Your task to perform on an android device: turn pop-ups on in chrome Image 0: 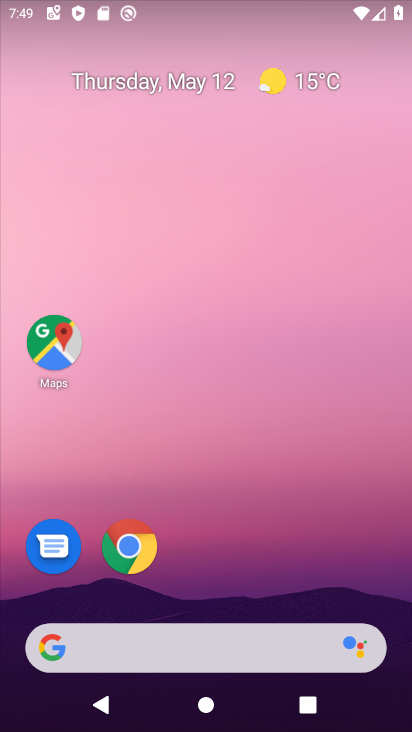
Step 0: drag from (136, 650) to (250, 225)
Your task to perform on an android device: turn pop-ups on in chrome Image 1: 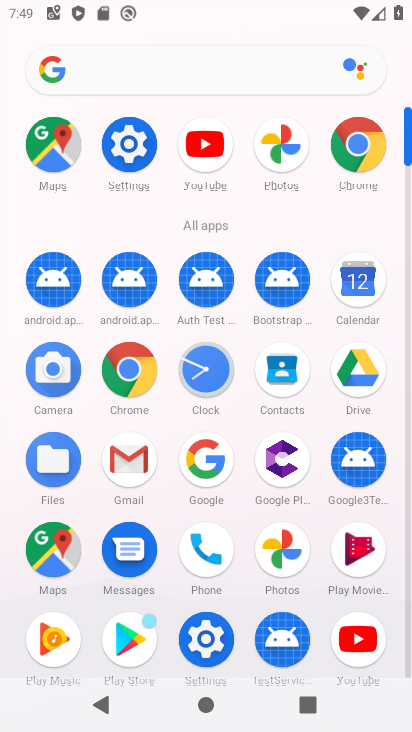
Step 1: click (352, 150)
Your task to perform on an android device: turn pop-ups on in chrome Image 2: 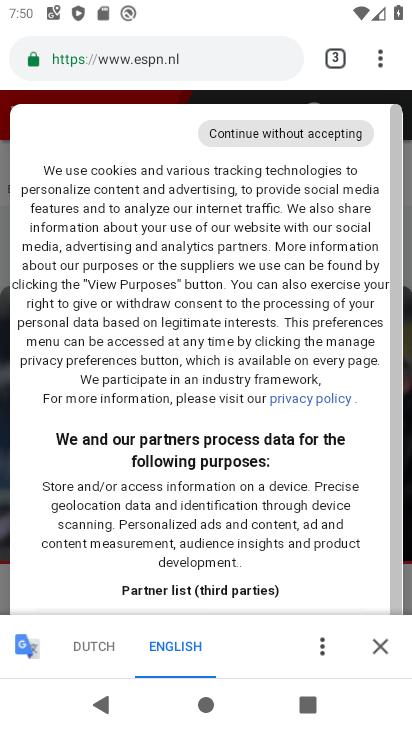
Step 2: drag from (376, 62) to (259, 575)
Your task to perform on an android device: turn pop-ups on in chrome Image 3: 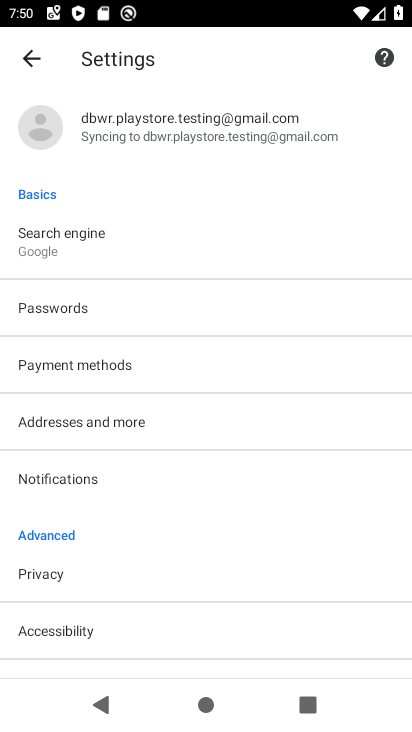
Step 3: drag from (139, 578) to (228, 332)
Your task to perform on an android device: turn pop-ups on in chrome Image 4: 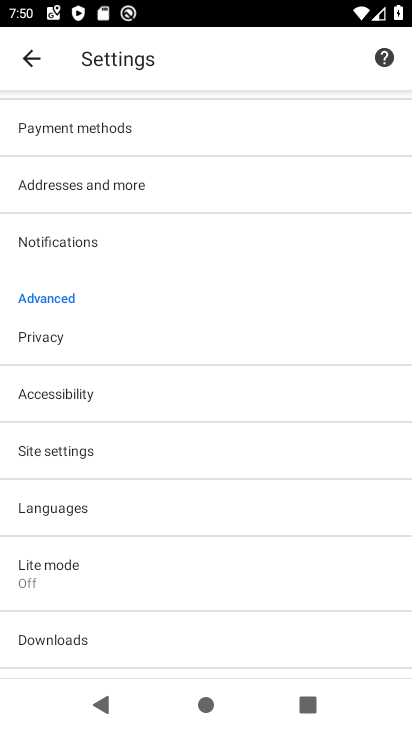
Step 4: click (104, 451)
Your task to perform on an android device: turn pop-ups on in chrome Image 5: 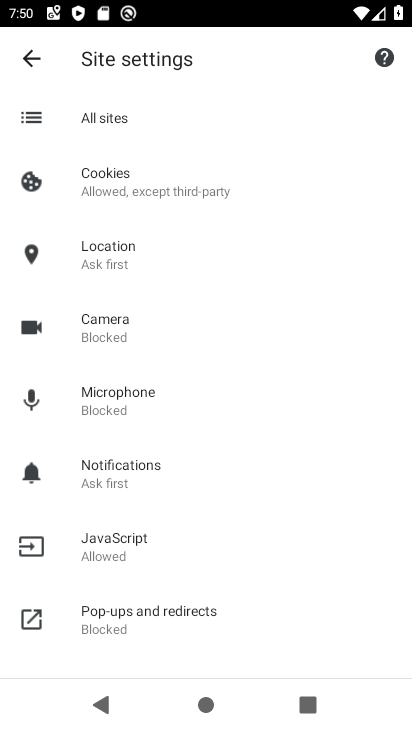
Step 5: click (122, 624)
Your task to perform on an android device: turn pop-ups on in chrome Image 6: 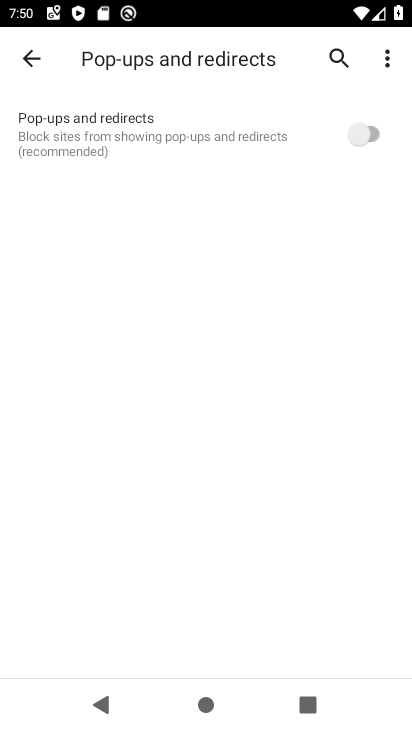
Step 6: click (375, 134)
Your task to perform on an android device: turn pop-ups on in chrome Image 7: 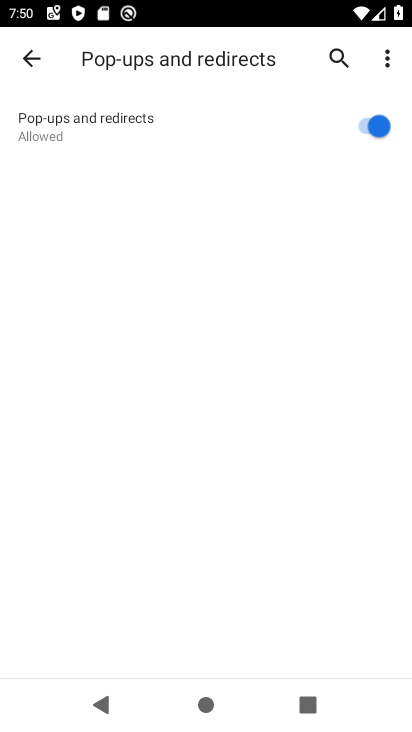
Step 7: task complete